Your task to perform on an android device: Go to settings Image 0: 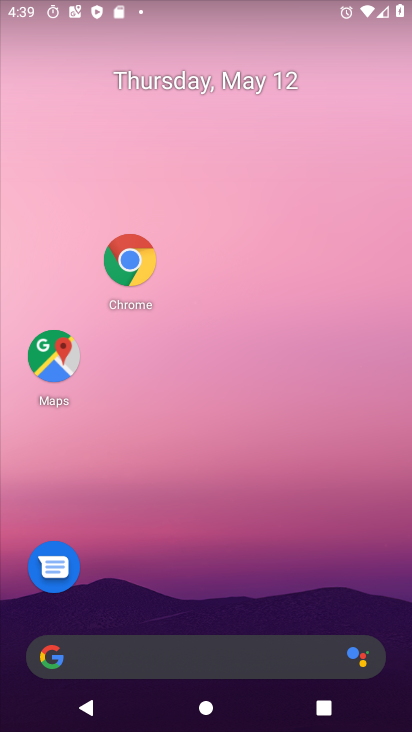
Step 0: drag from (187, 499) to (192, 254)
Your task to perform on an android device: Go to settings Image 1: 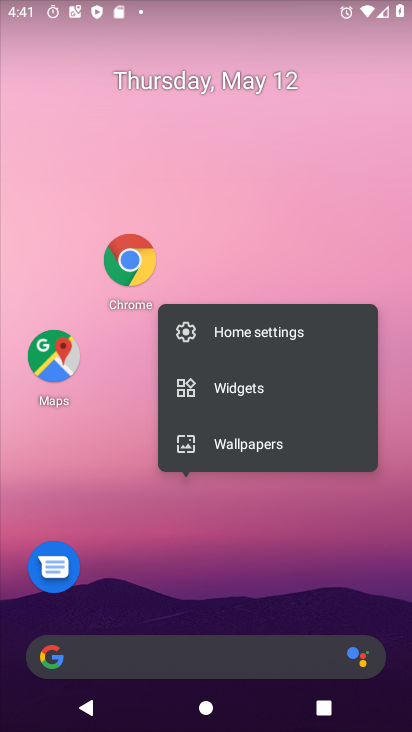
Step 1: press home button
Your task to perform on an android device: Go to settings Image 2: 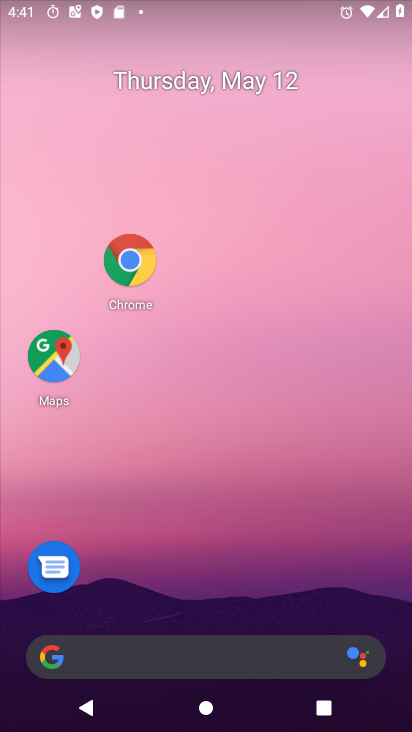
Step 2: drag from (158, 431) to (196, 176)
Your task to perform on an android device: Go to settings Image 3: 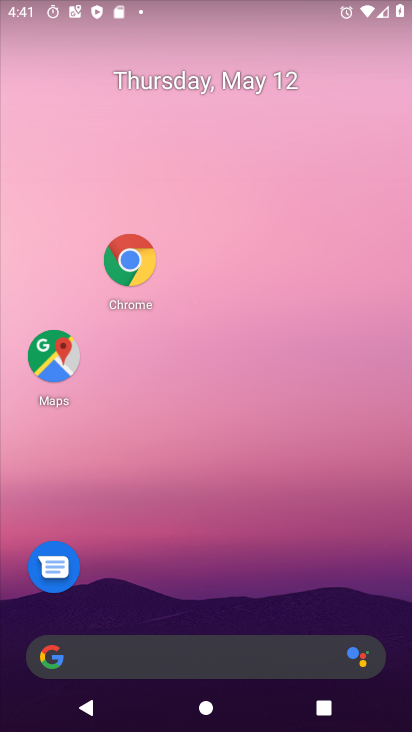
Step 3: drag from (228, 532) to (237, 211)
Your task to perform on an android device: Go to settings Image 4: 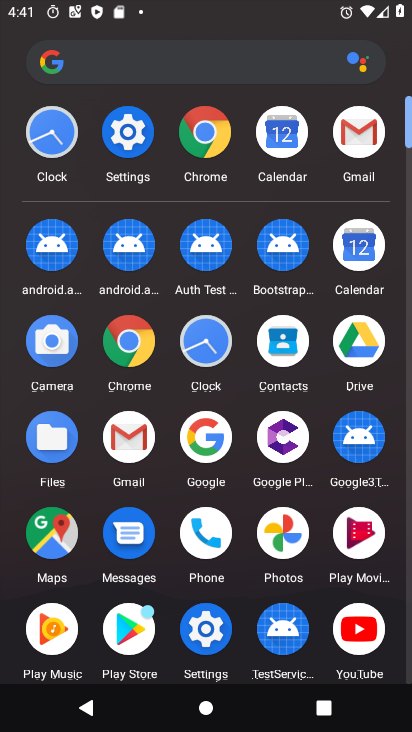
Step 4: click (106, 138)
Your task to perform on an android device: Go to settings Image 5: 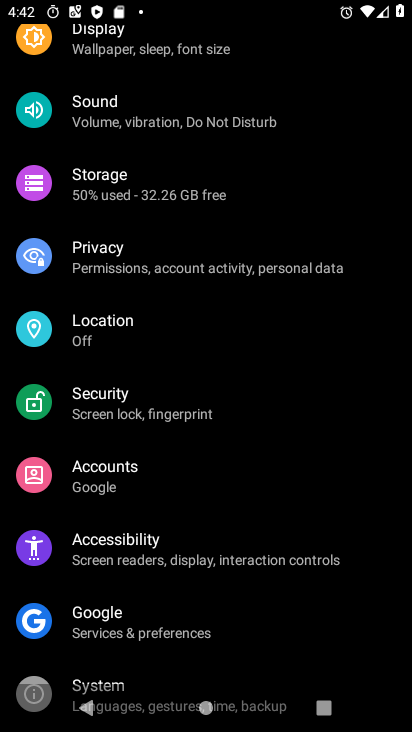
Step 5: task complete